Your task to perform on an android device: Go to notification settings Image 0: 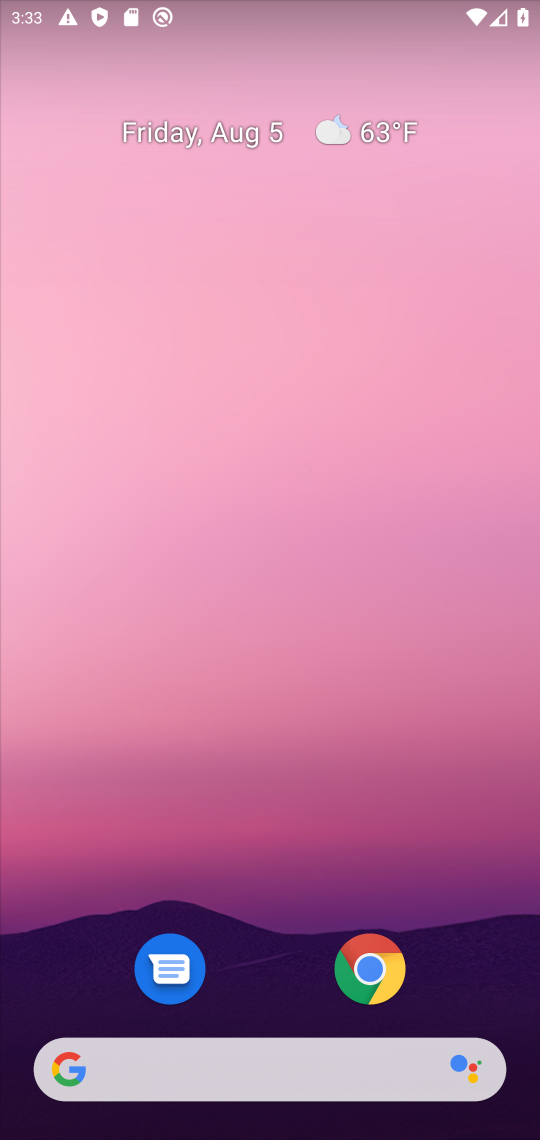
Step 0: drag from (299, 970) to (396, 206)
Your task to perform on an android device: Go to notification settings Image 1: 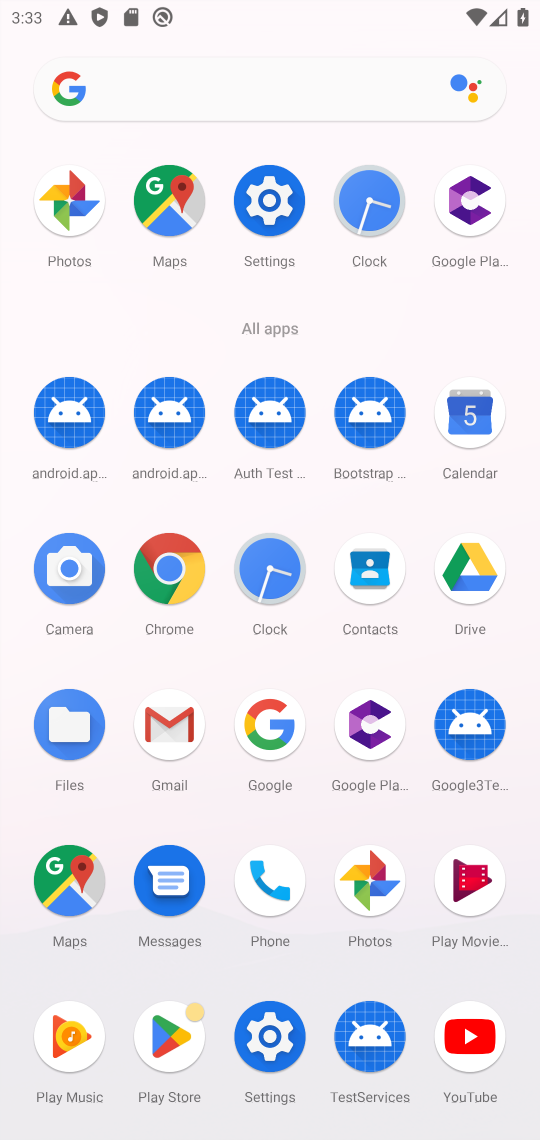
Step 1: click (266, 201)
Your task to perform on an android device: Go to notification settings Image 2: 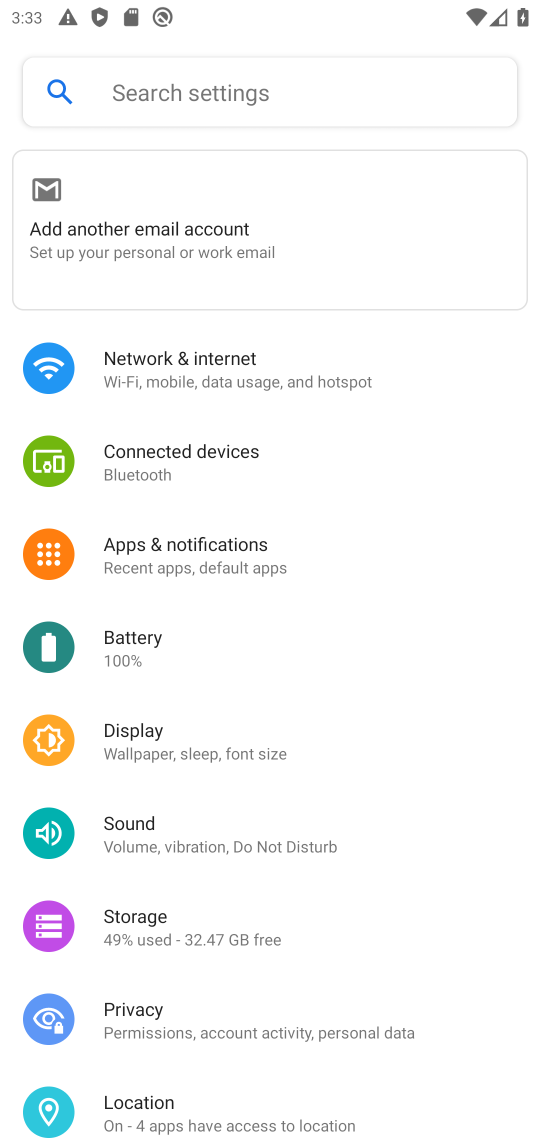
Step 2: click (223, 572)
Your task to perform on an android device: Go to notification settings Image 3: 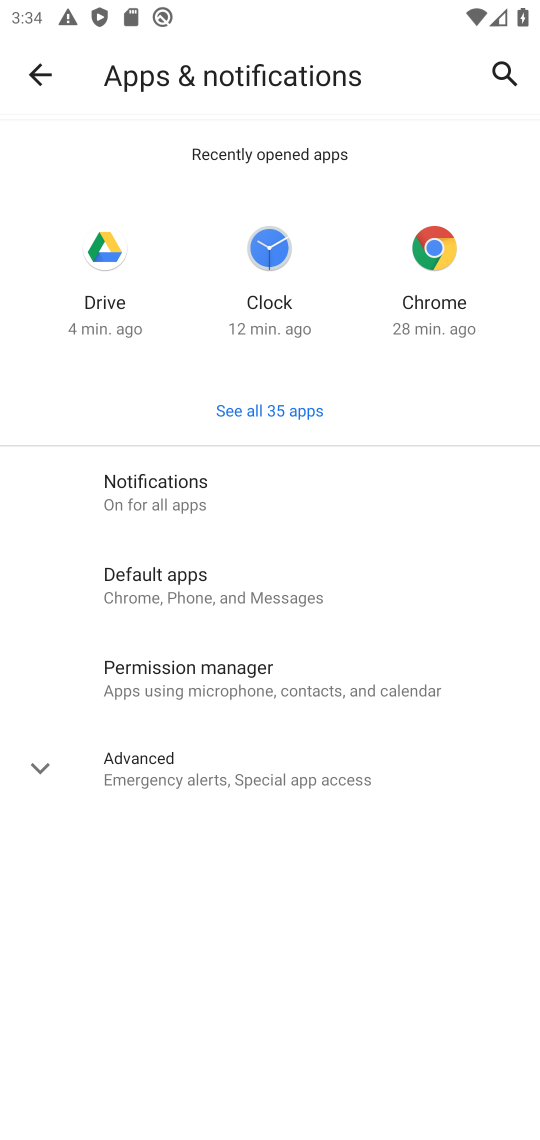
Step 3: task complete